Your task to perform on an android device: turn on improve location accuracy Image 0: 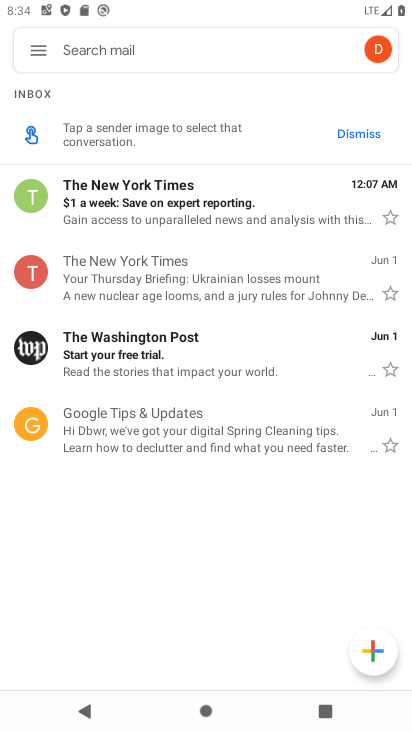
Step 0: press home button
Your task to perform on an android device: turn on improve location accuracy Image 1: 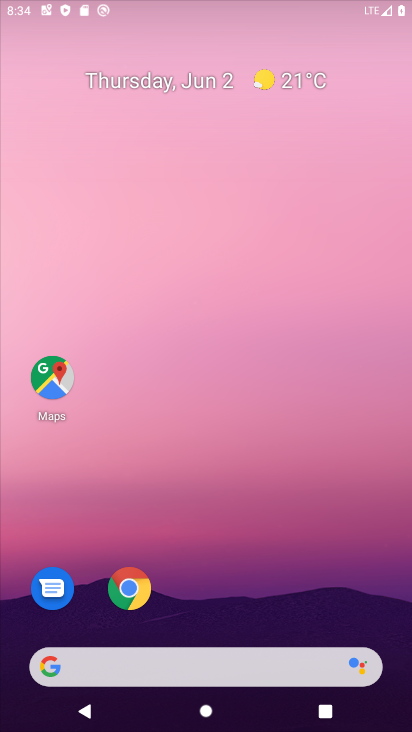
Step 1: drag from (239, 459) to (242, 265)
Your task to perform on an android device: turn on improve location accuracy Image 2: 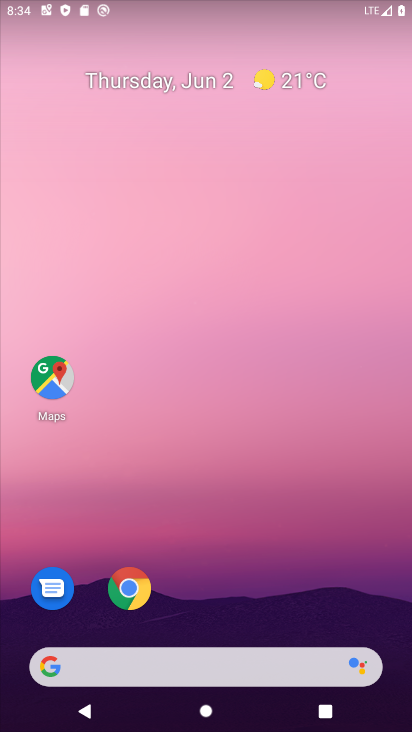
Step 2: drag from (231, 493) to (264, 207)
Your task to perform on an android device: turn on improve location accuracy Image 3: 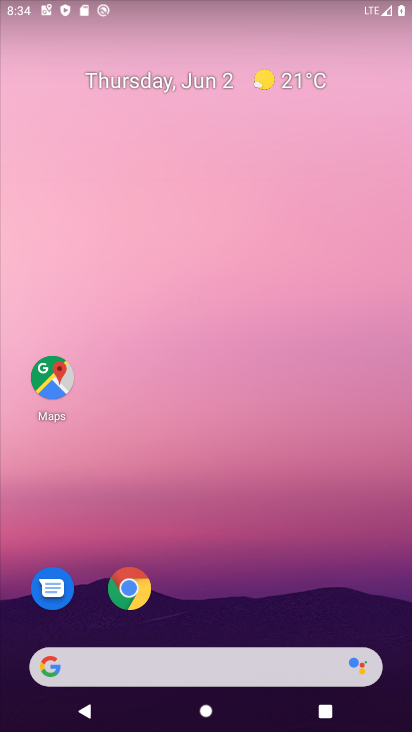
Step 3: drag from (217, 674) to (340, 3)
Your task to perform on an android device: turn on improve location accuracy Image 4: 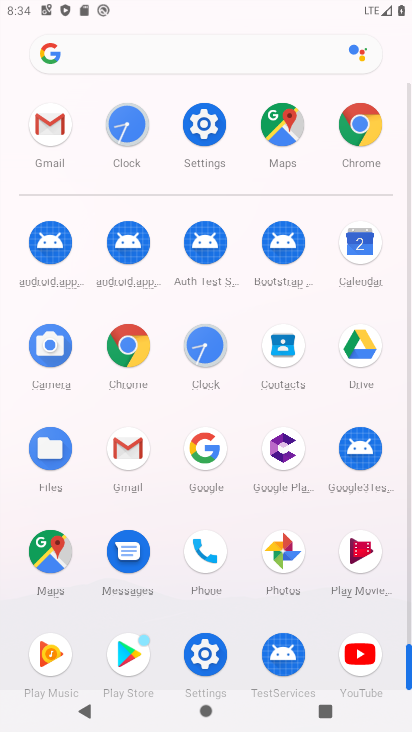
Step 4: click (200, 136)
Your task to perform on an android device: turn on improve location accuracy Image 5: 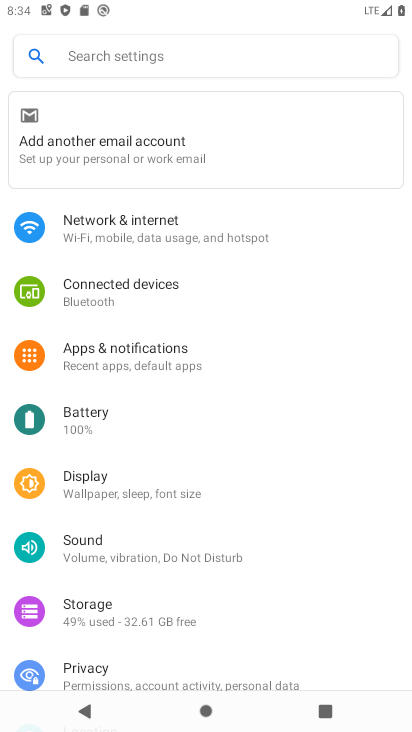
Step 5: drag from (178, 429) to (223, 112)
Your task to perform on an android device: turn on improve location accuracy Image 6: 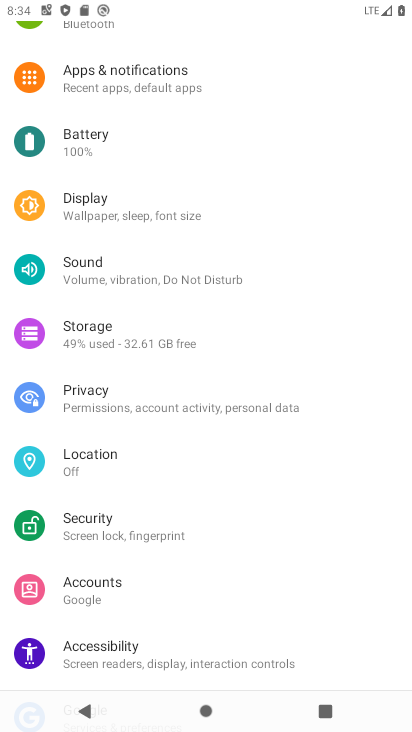
Step 6: click (135, 468)
Your task to perform on an android device: turn on improve location accuracy Image 7: 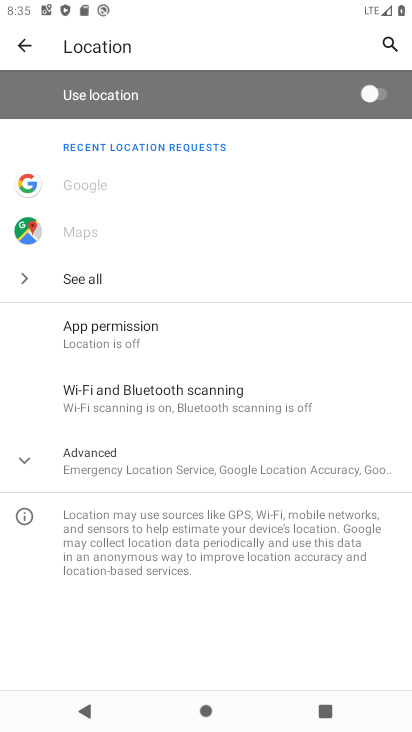
Step 7: click (190, 456)
Your task to perform on an android device: turn on improve location accuracy Image 8: 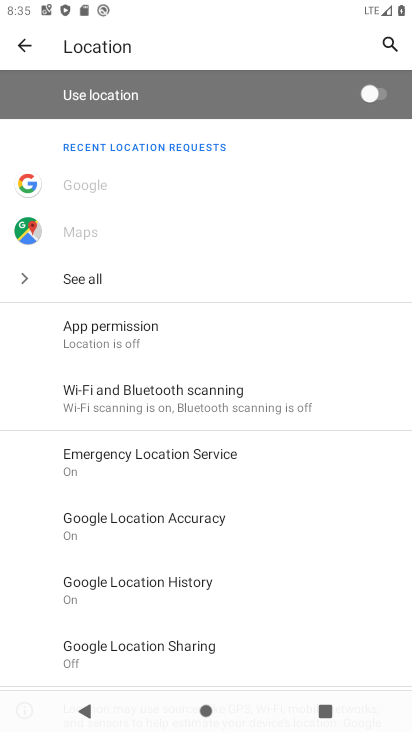
Step 8: click (201, 526)
Your task to perform on an android device: turn on improve location accuracy Image 9: 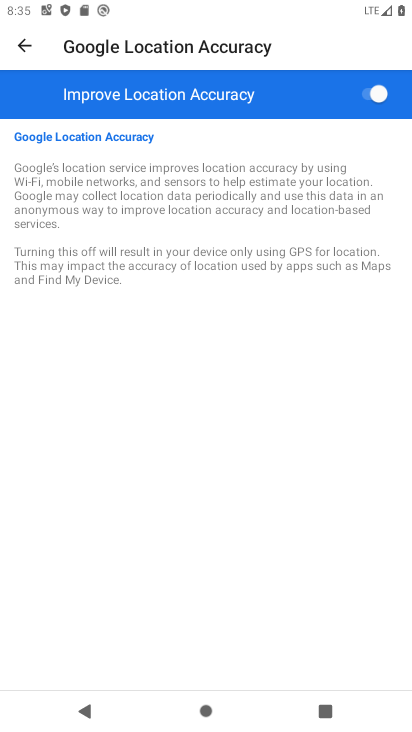
Step 9: task complete